Your task to perform on an android device: turn off smart reply in the gmail app Image 0: 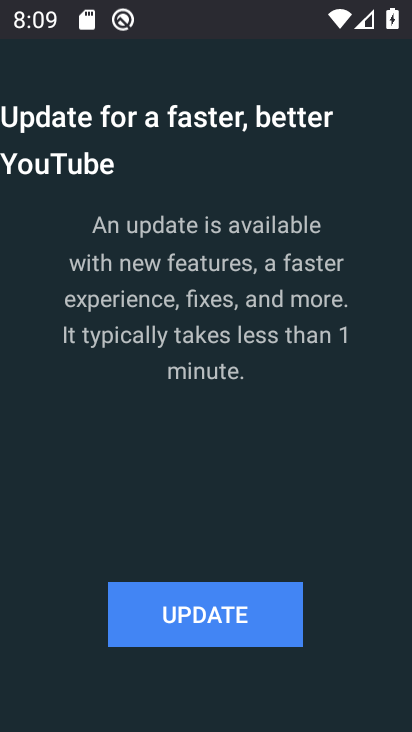
Step 0: press home button
Your task to perform on an android device: turn off smart reply in the gmail app Image 1: 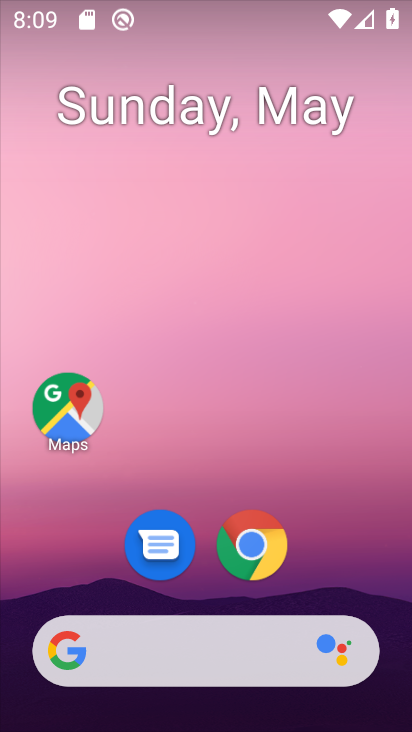
Step 1: drag from (93, 594) to (178, 69)
Your task to perform on an android device: turn off smart reply in the gmail app Image 2: 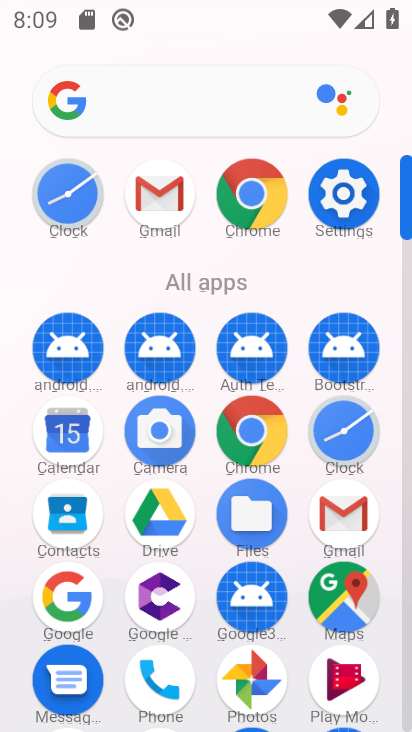
Step 2: drag from (137, 579) to (273, 285)
Your task to perform on an android device: turn off smart reply in the gmail app Image 3: 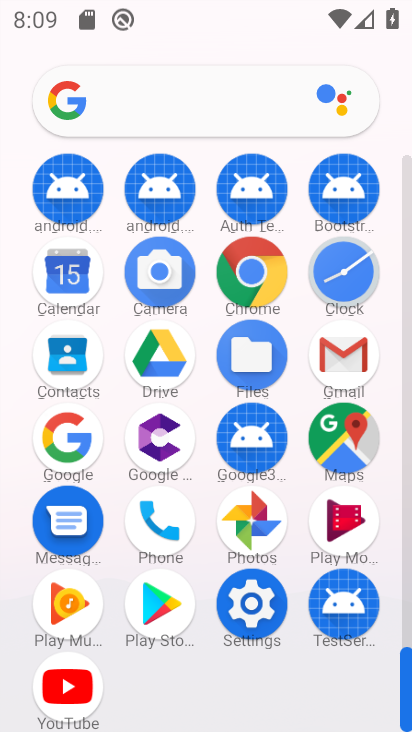
Step 3: click (369, 366)
Your task to perform on an android device: turn off smart reply in the gmail app Image 4: 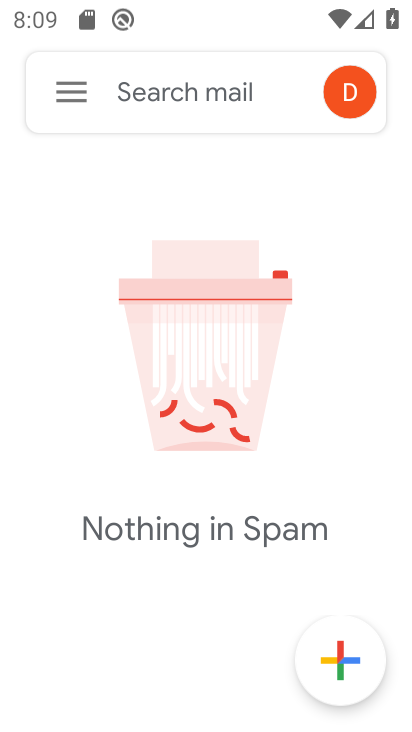
Step 4: click (92, 96)
Your task to perform on an android device: turn off smart reply in the gmail app Image 5: 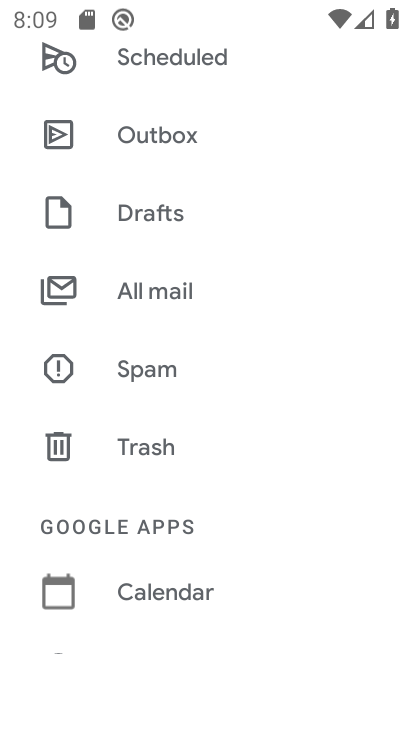
Step 5: drag from (173, 645) to (296, 190)
Your task to perform on an android device: turn off smart reply in the gmail app Image 6: 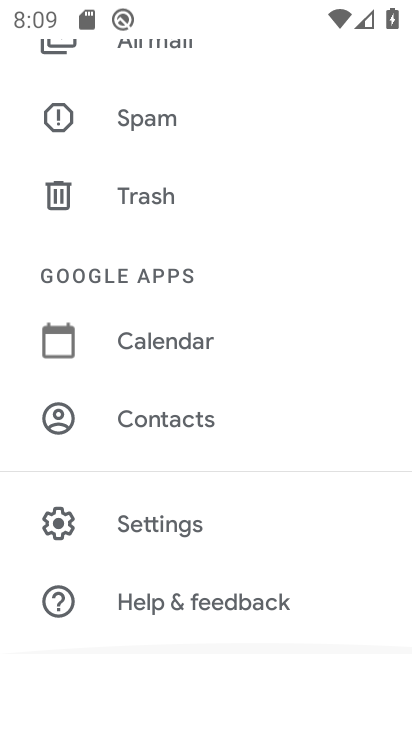
Step 6: click (210, 516)
Your task to perform on an android device: turn off smart reply in the gmail app Image 7: 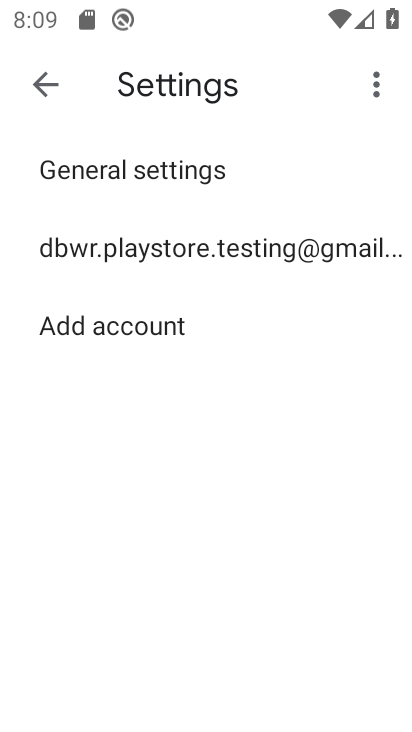
Step 7: click (233, 249)
Your task to perform on an android device: turn off smart reply in the gmail app Image 8: 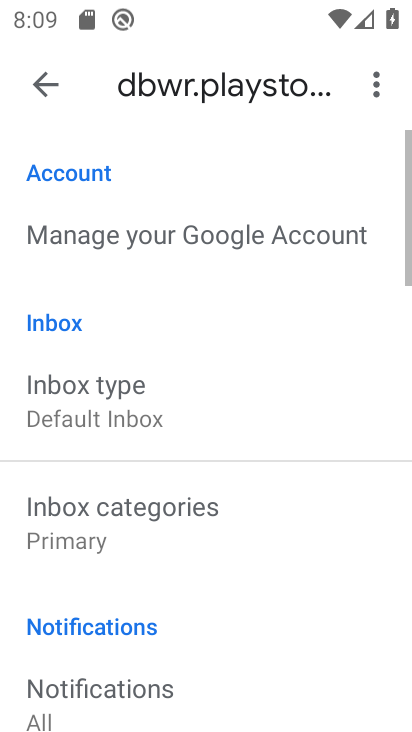
Step 8: drag from (194, 583) to (299, 166)
Your task to perform on an android device: turn off smart reply in the gmail app Image 9: 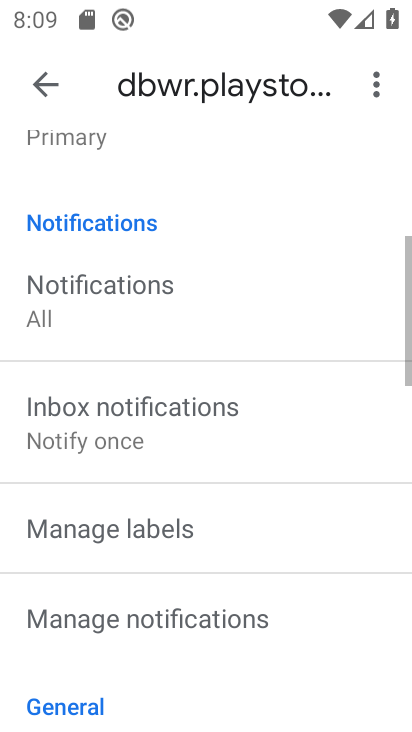
Step 9: drag from (260, 665) to (334, 191)
Your task to perform on an android device: turn off smart reply in the gmail app Image 10: 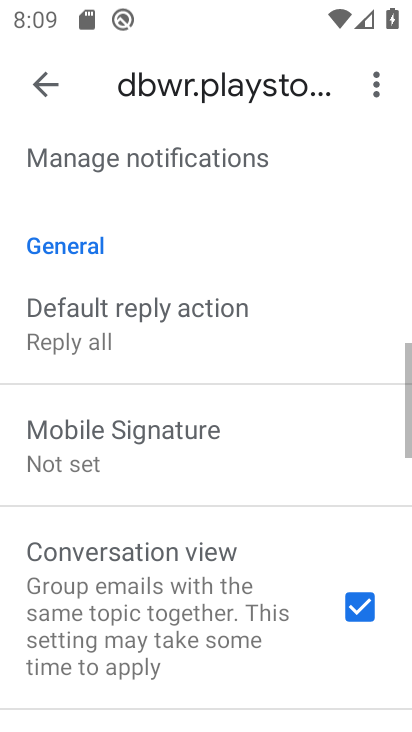
Step 10: drag from (174, 713) to (304, 207)
Your task to perform on an android device: turn off smart reply in the gmail app Image 11: 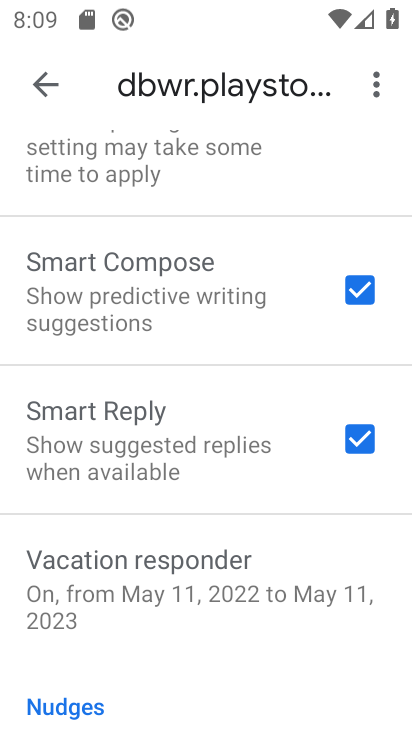
Step 11: click (354, 445)
Your task to perform on an android device: turn off smart reply in the gmail app Image 12: 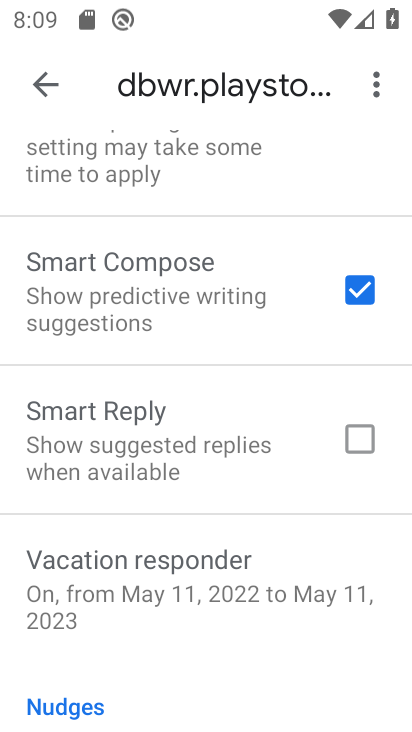
Step 12: task complete